Your task to perform on an android device: turn off javascript in the chrome app Image 0: 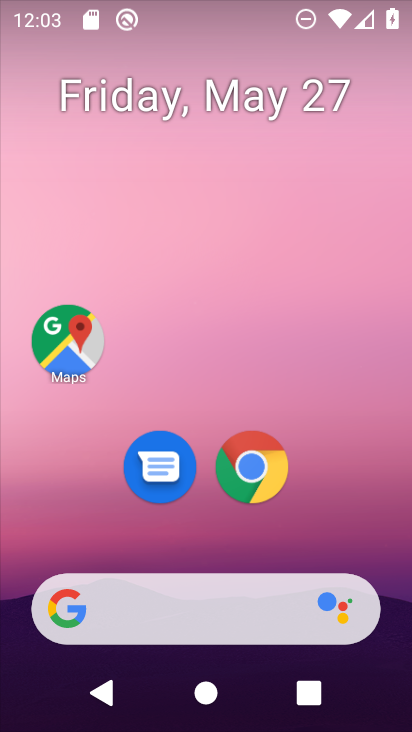
Step 0: drag from (174, 547) to (256, 165)
Your task to perform on an android device: turn off javascript in the chrome app Image 1: 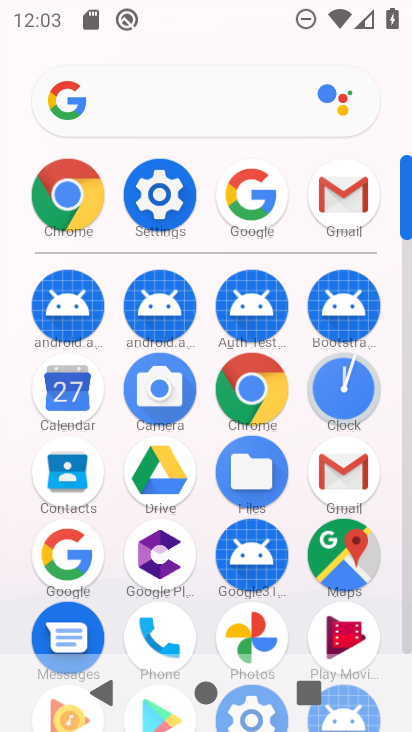
Step 1: drag from (194, 255) to (205, 168)
Your task to perform on an android device: turn off javascript in the chrome app Image 2: 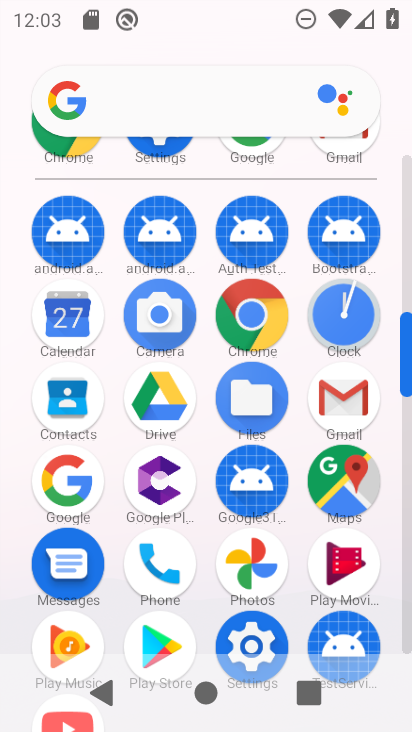
Step 2: click (257, 320)
Your task to perform on an android device: turn off javascript in the chrome app Image 3: 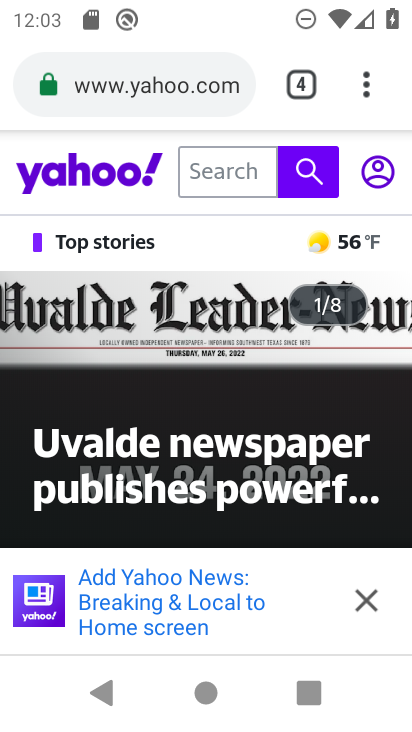
Step 3: click (362, 97)
Your task to perform on an android device: turn off javascript in the chrome app Image 4: 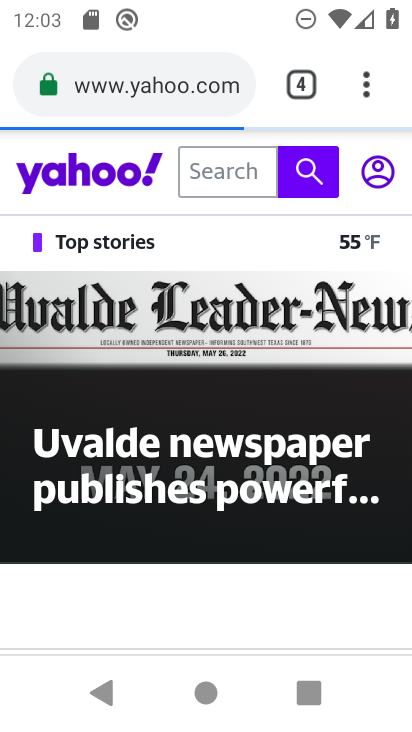
Step 4: click (358, 82)
Your task to perform on an android device: turn off javascript in the chrome app Image 5: 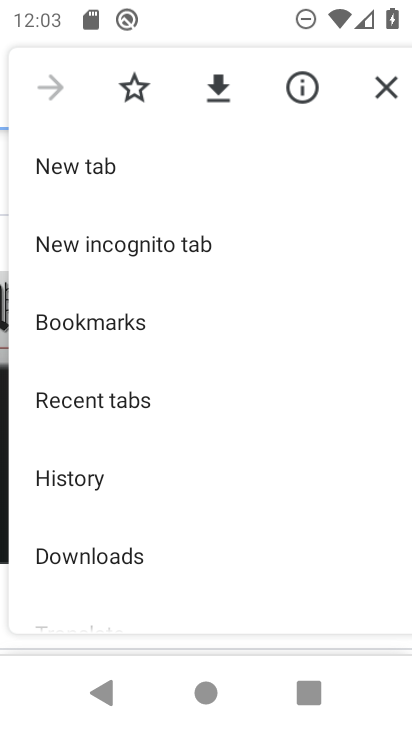
Step 5: drag from (137, 595) to (208, 228)
Your task to perform on an android device: turn off javascript in the chrome app Image 6: 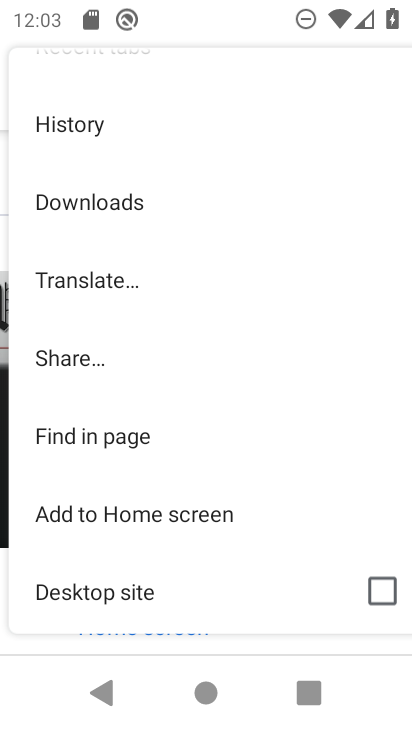
Step 6: drag from (170, 559) to (185, 245)
Your task to perform on an android device: turn off javascript in the chrome app Image 7: 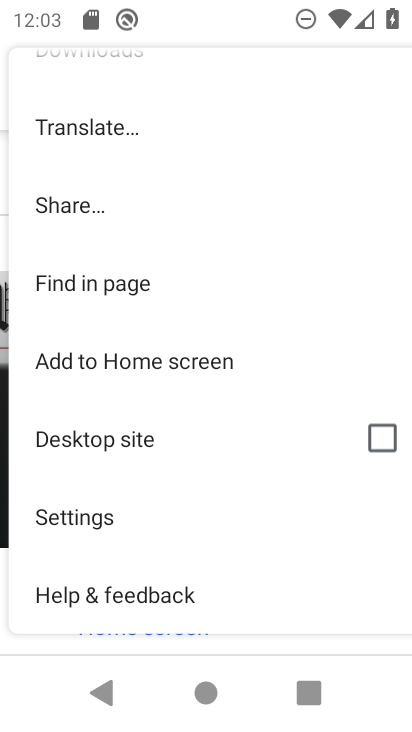
Step 7: click (135, 526)
Your task to perform on an android device: turn off javascript in the chrome app Image 8: 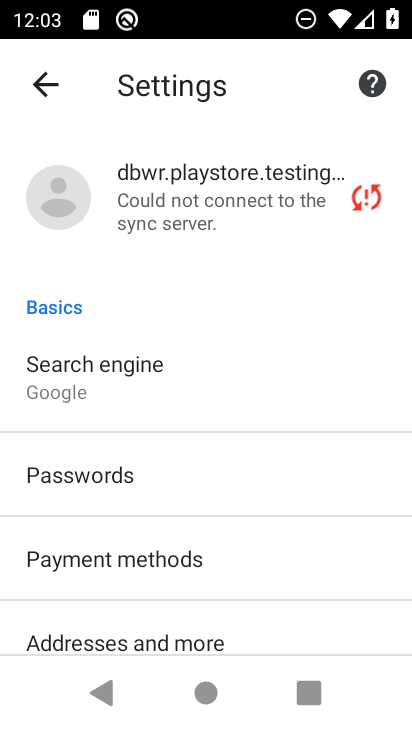
Step 8: drag from (158, 577) to (242, 243)
Your task to perform on an android device: turn off javascript in the chrome app Image 9: 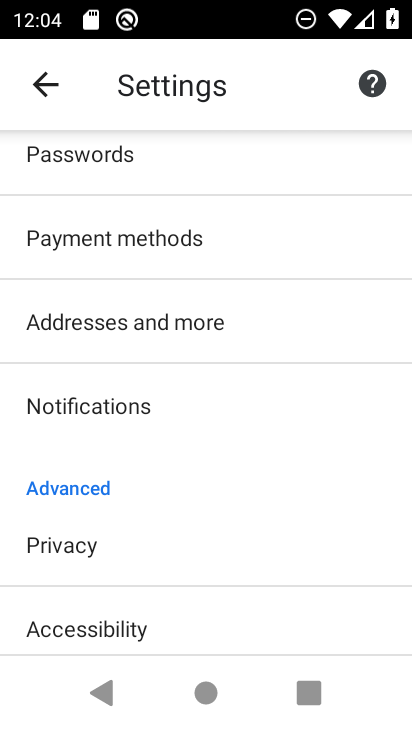
Step 9: drag from (176, 551) to (182, 352)
Your task to perform on an android device: turn off javascript in the chrome app Image 10: 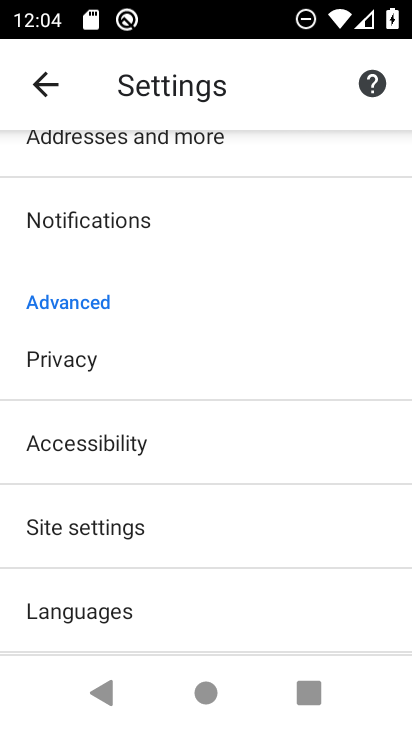
Step 10: click (175, 545)
Your task to perform on an android device: turn off javascript in the chrome app Image 11: 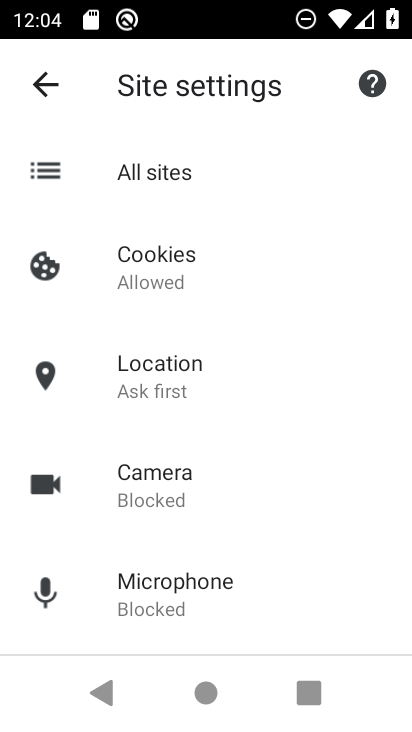
Step 11: drag from (219, 526) to (282, 138)
Your task to perform on an android device: turn off javascript in the chrome app Image 12: 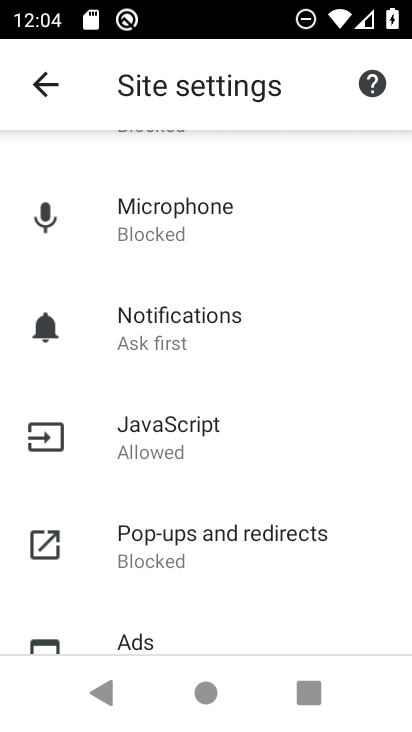
Step 12: click (215, 450)
Your task to perform on an android device: turn off javascript in the chrome app Image 13: 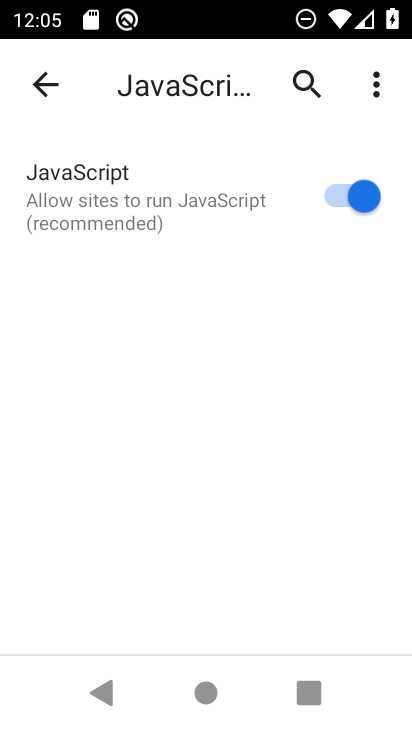
Step 13: click (353, 213)
Your task to perform on an android device: turn off javascript in the chrome app Image 14: 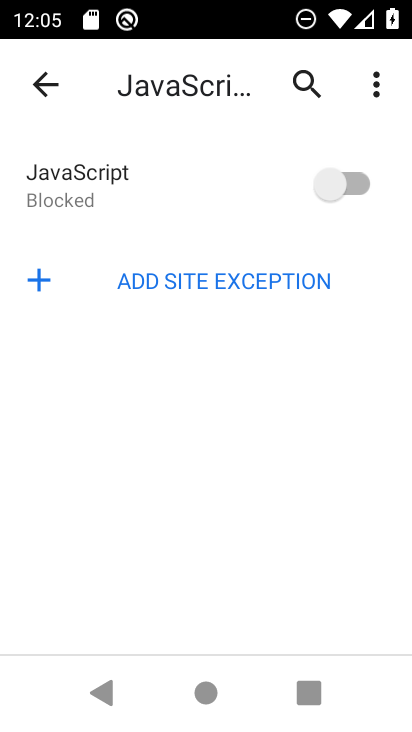
Step 14: task complete